Your task to perform on an android device: Go to eBay Image 0: 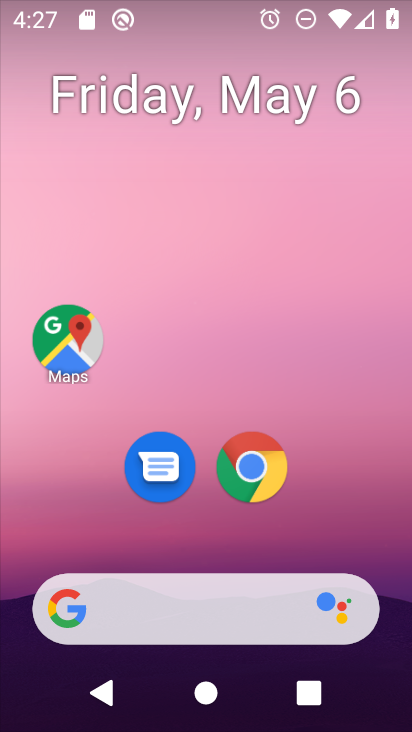
Step 0: drag from (308, 545) to (306, 170)
Your task to perform on an android device: Go to eBay Image 1: 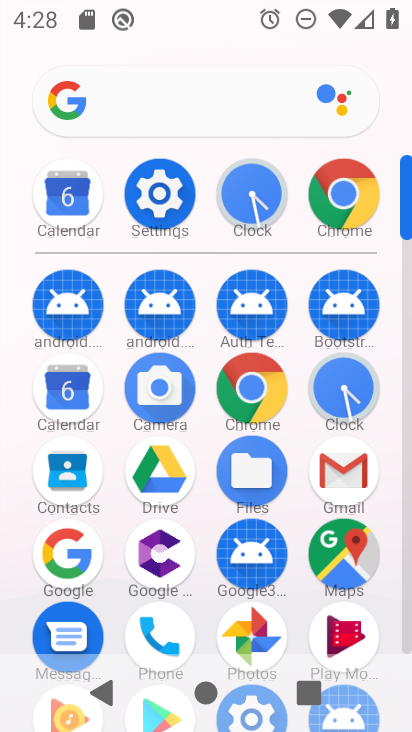
Step 1: click (351, 216)
Your task to perform on an android device: Go to eBay Image 2: 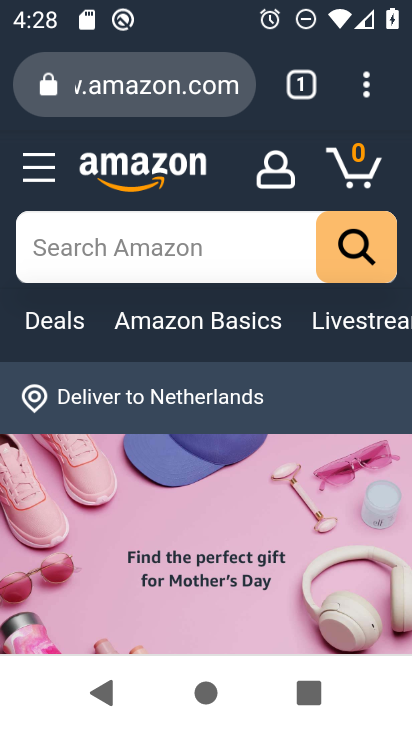
Step 2: click (146, 93)
Your task to perform on an android device: Go to eBay Image 3: 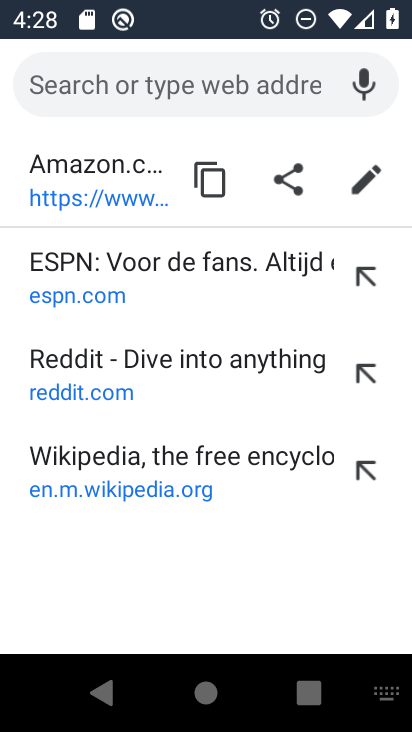
Step 3: type "www.ebay.com"
Your task to perform on an android device: Go to eBay Image 4: 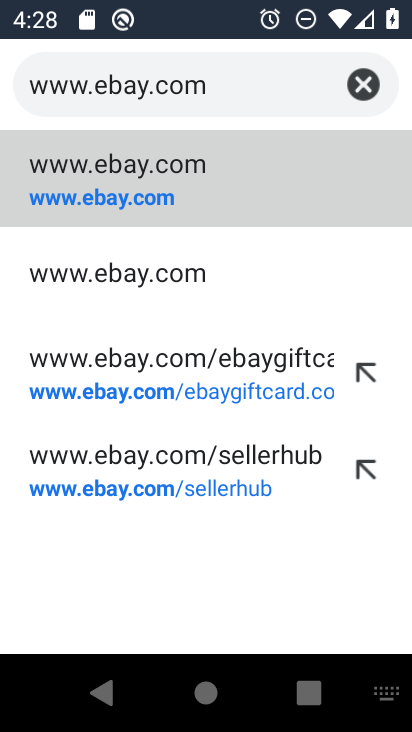
Step 4: click (123, 170)
Your task to perform on an android device: Go to eBay Image 5: 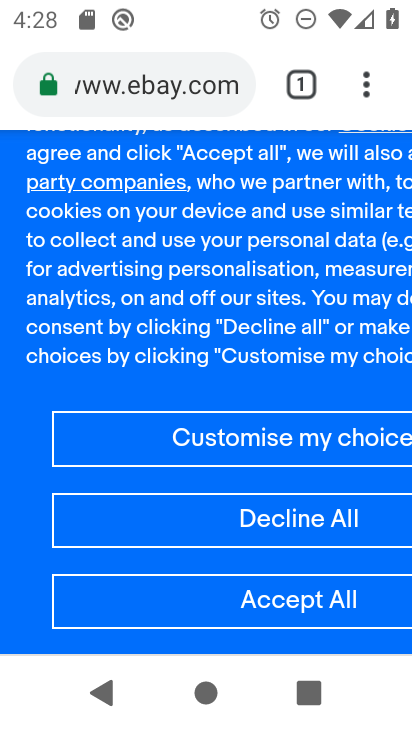
Step 5: task complete